Your task to perform on an android device: open a new tab in the chrome app Image 0: 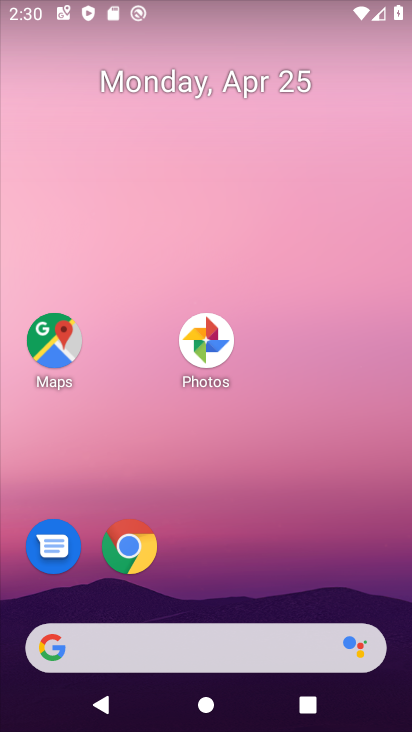
Step 0: drag from (309, 535) to (300, 170)
Your task to perform on an android device: open a new tab in the chrome app Image 1: 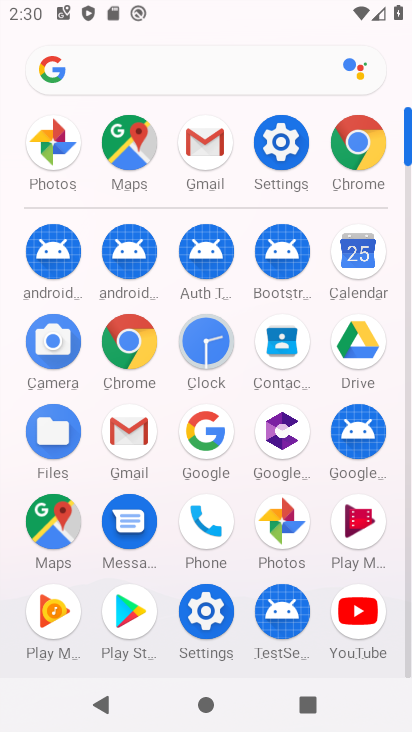
Step 1: click (359, 144)
Your task to perform on an android device: open a new tab in the chrome app Image 2: 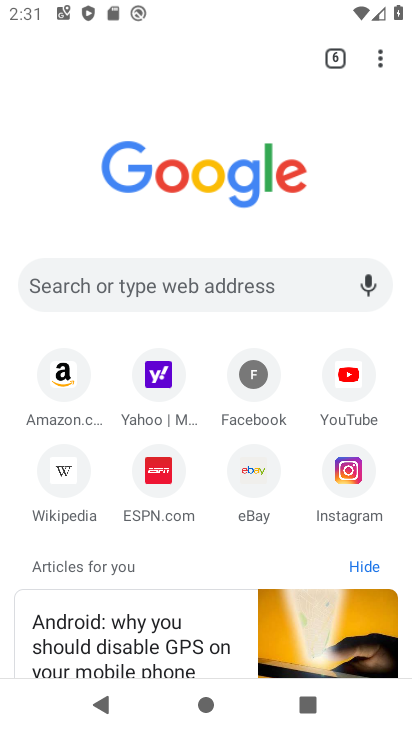
Step 2: task complete